Your task to perform on an android device: Open ESPN.com Image 0: 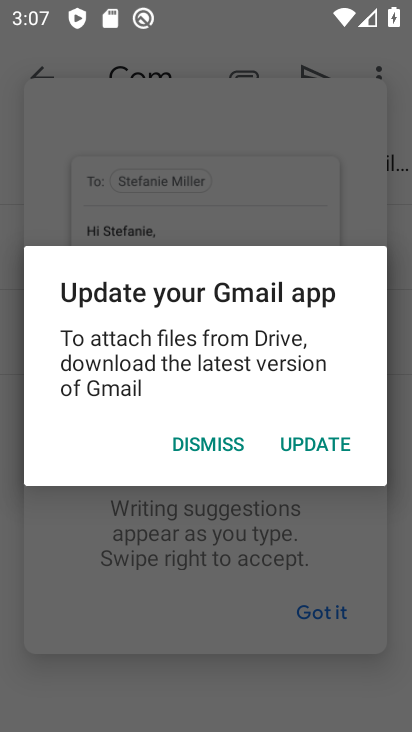
Step 0: press home button
Your task to perform on an android device: Open ESPN.com Image 1: 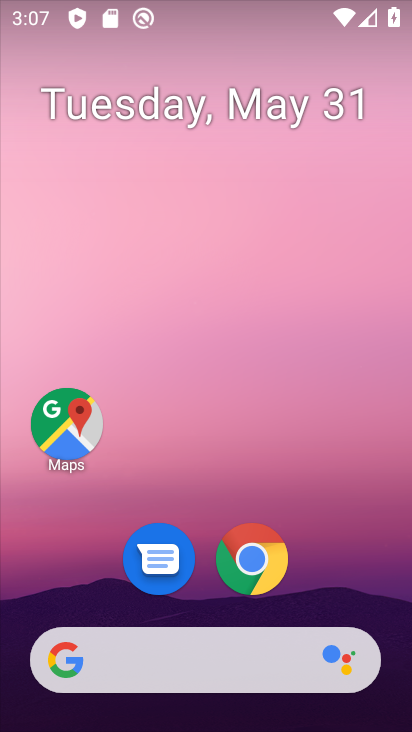
Step 1: click (250, 563)
Your task to perform on an android device: Open ESPN.com Image 2: 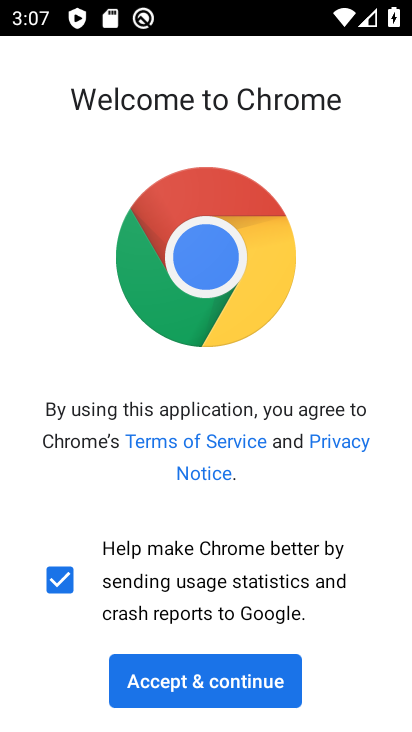
Step 2: click (178, 687)
Your task to perform on an android device: Open ESPN.com Image 3: 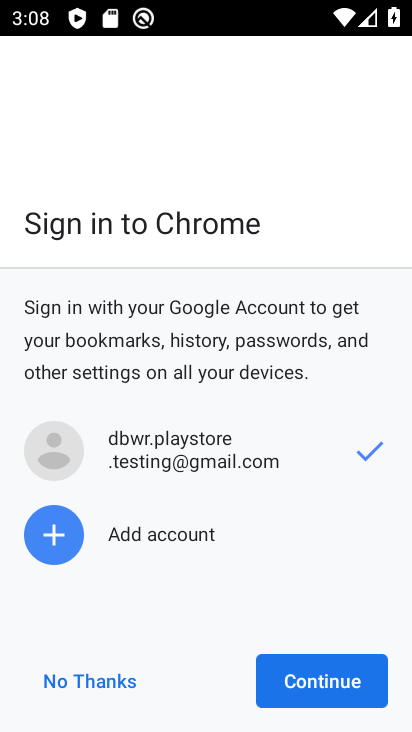
Step 3: click (340, 685)
Your task to perform on an android device: Open ESPN.com Image 4: 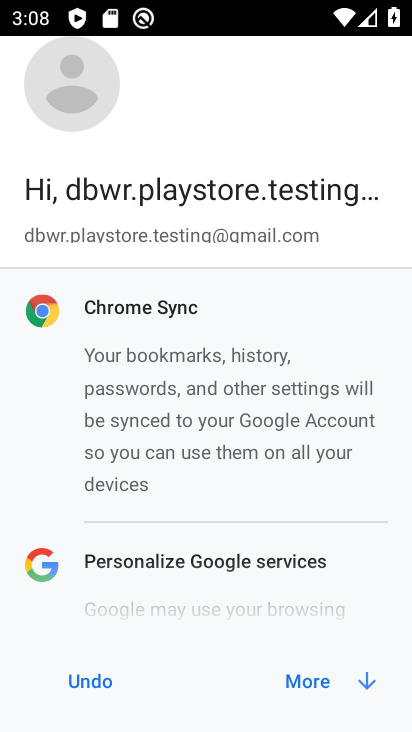
Step 4: click (307, 677)
Your task to perform on an android device: Open ESPN.com Image 5: 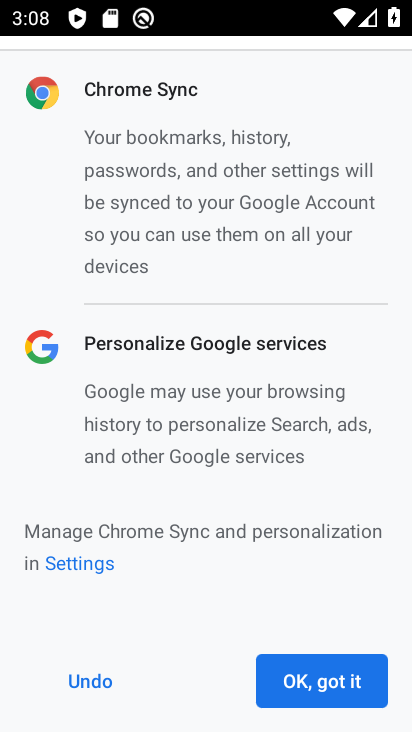
Step 5: click (310, 684)
Your task to perform on an android device: Open ESPN.com Image 6: 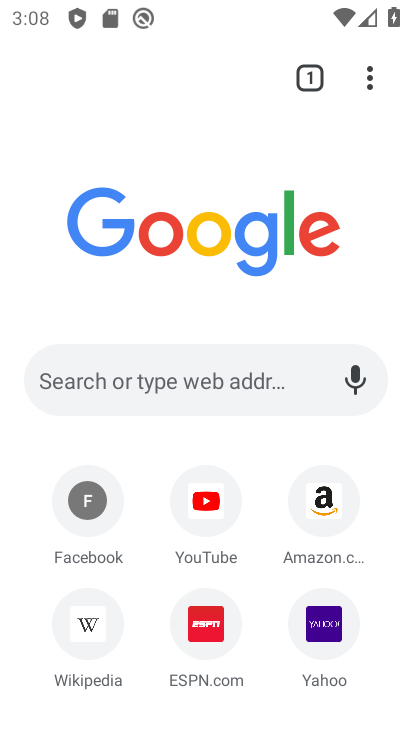
Step 6: click (198, 624)
Your task to perform on an android device: Open ESPN.com Image 7: 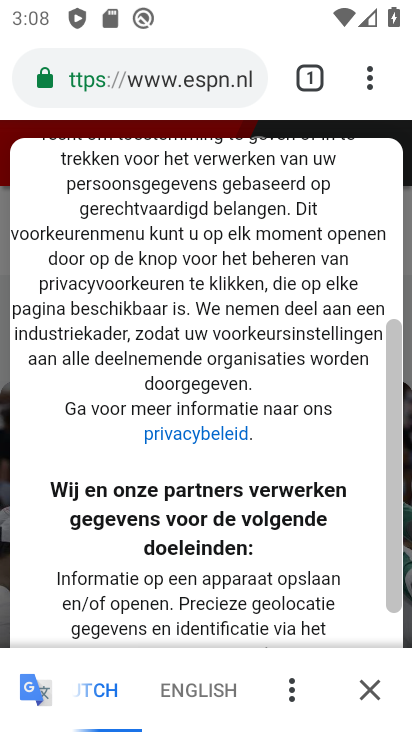
Step 7: drag from (233, 630) to (229, 220)
Your task to perform on an android device: Open ESPN.com Image 8: 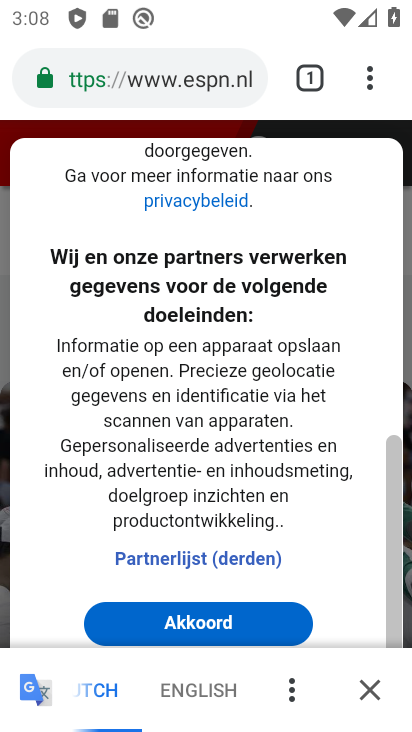
Step 8: click (207, 624)
Your task to perform on an android device: Open ESPN.com Image 9: 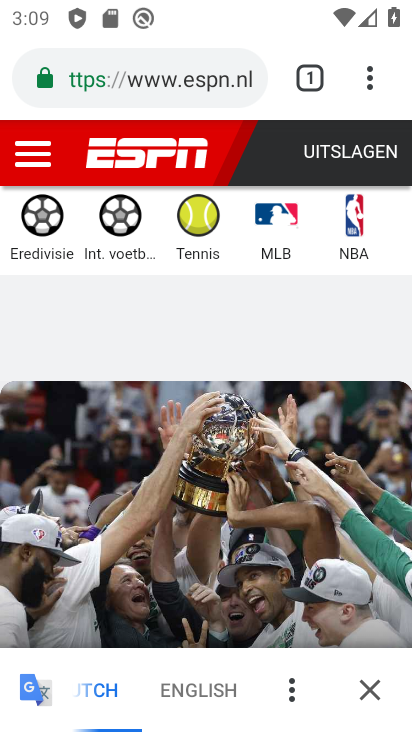
Step 9: task complete